Your task to perform on an android device: change the clock display to show seconds Image 0: 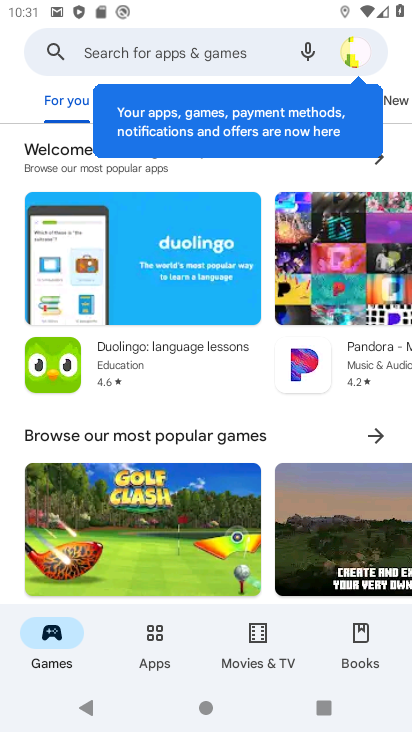
Step 0: press home button
Your task to perform on an android device: change the clock display to show seconds Image 1: 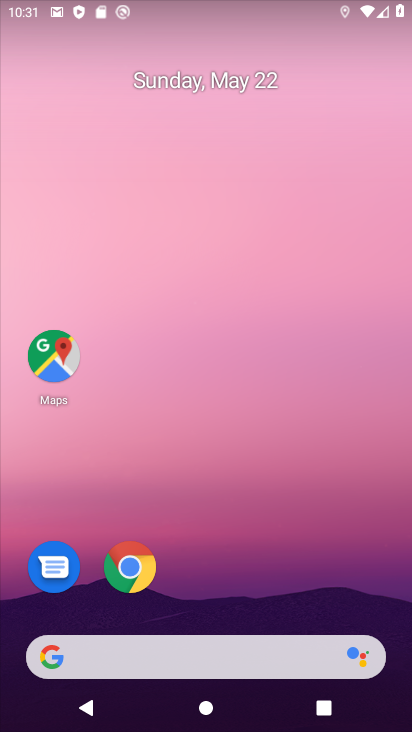
Step 1: drag from (343, 536) to (288, 206)
Your task to perform on an android device: change the clock display to show seconds Image 2: 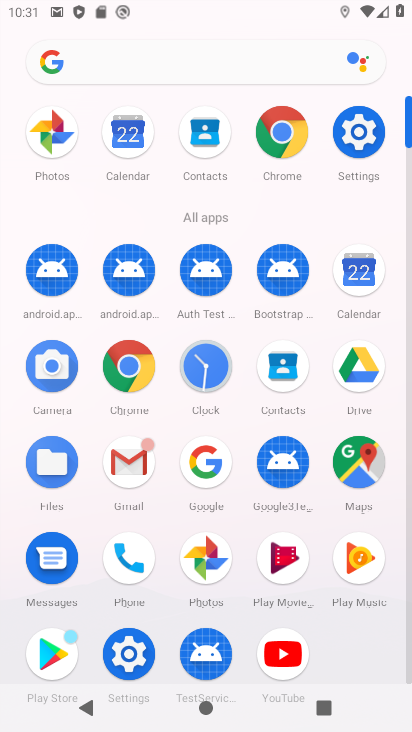
Step 2: click (212, 358)
Your task to perform on an android device: change the clock display to show seconds Image 3: 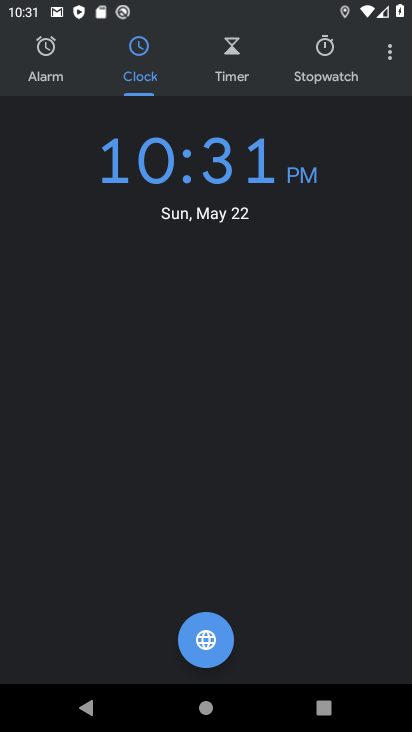
Step 3: drag from (399, 64) to (269, 96)
Your task to perform on an android device: change the clock display to show seconds Image 4: 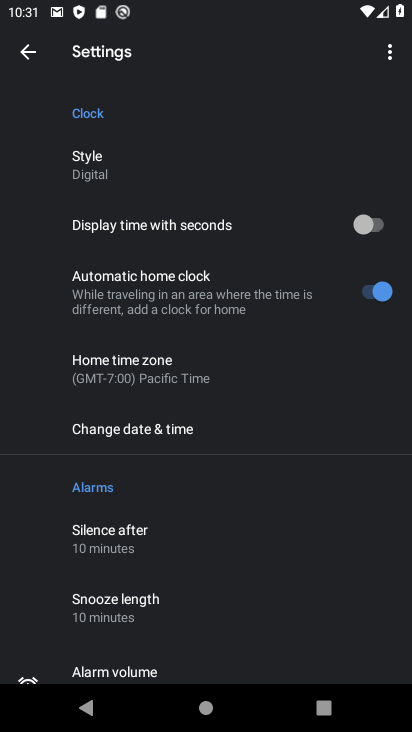
Step 4: drag from (220, 563) to (246, 279)
Your task to perform on an android device: change the clock display to show seconds Image 5: 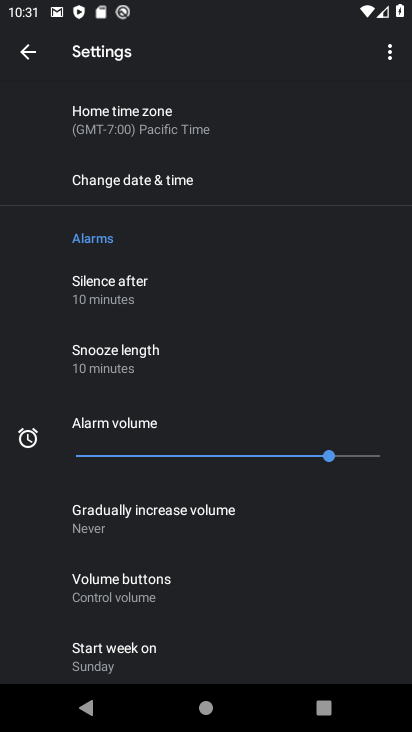
Step 5: drag from (235, 131) to (167, 529)
Your task to perform on an android device: change the clock display to show seconds Image 6: 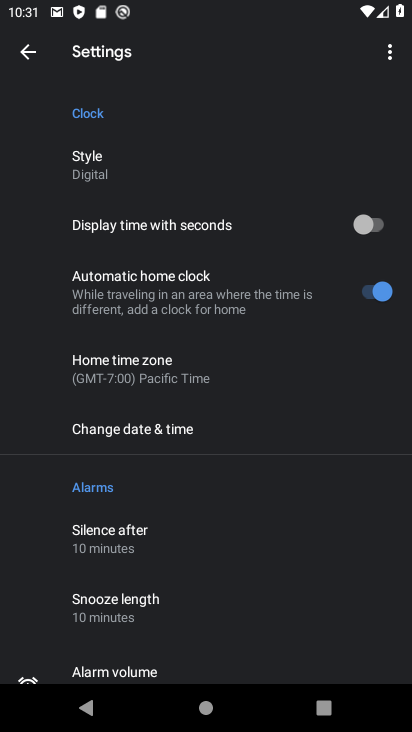
Step 6: click (381, 223)
Your task to perform on an android device: change the clock display to show seconds Image 7: 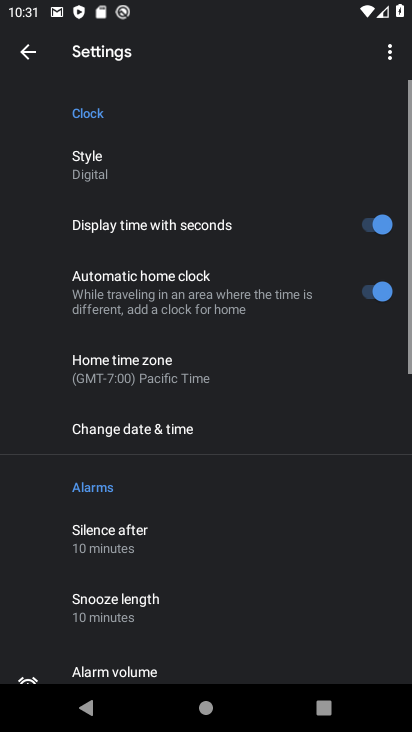
Step 7: task complete